Your task to perform on an android device: install app "YouTube Kids" Image 0: 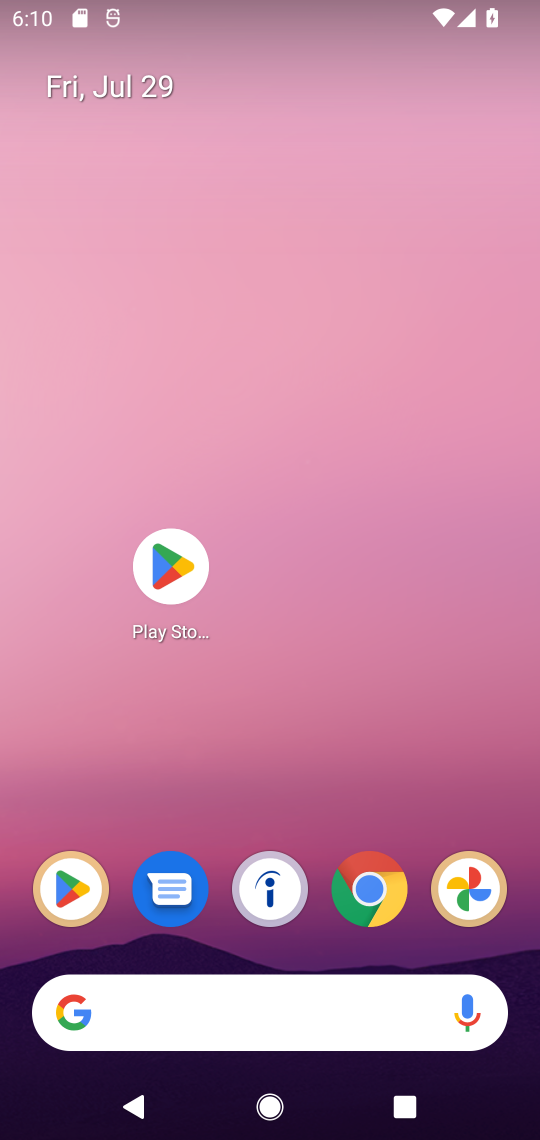
Step 0: press home button
Your task to perform on an android device: install app "YouTube Kids" Image 1: 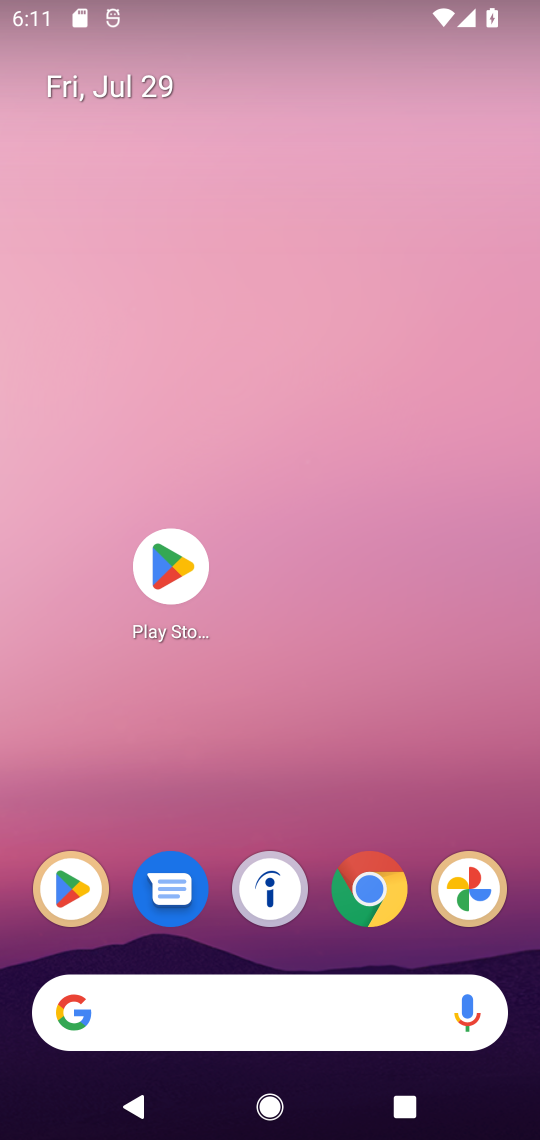
Step 1: click (180, 567)
Your task to perform on an android device: install app "YouTube Kids" Image 2: 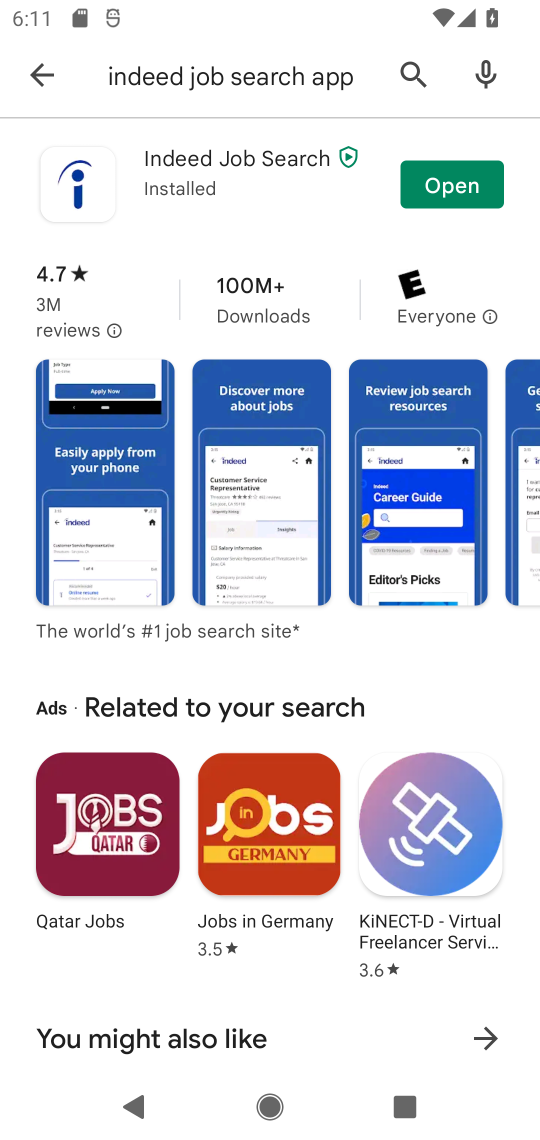
Step 2: click (407, 73)
Your task to perform on an android device: install app "YouTube Kids" Image 3: 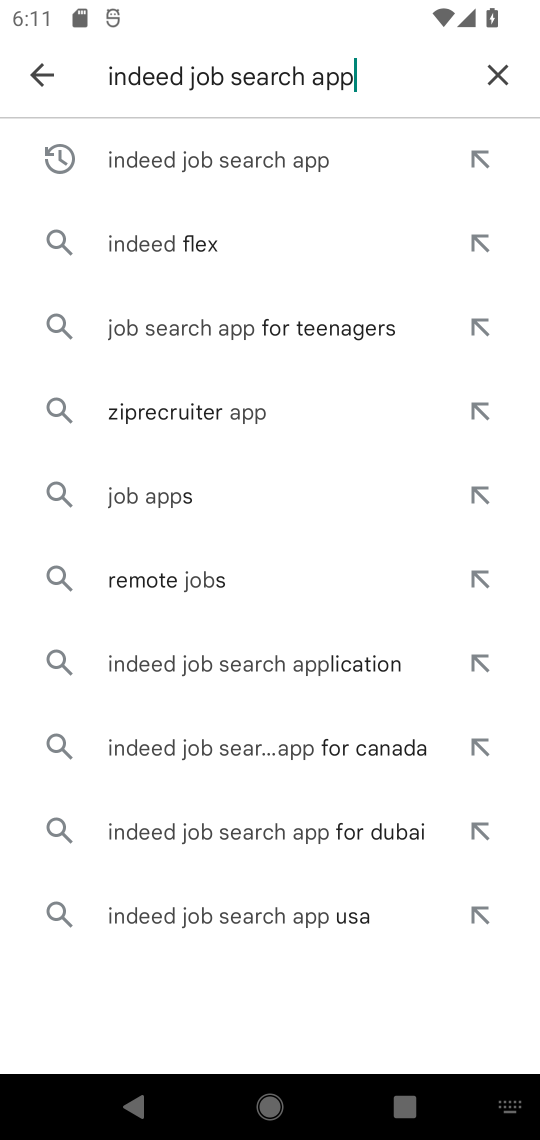
Step 3: click (499, 61)
Your task to perform on an android device: install app "YouTube Kids" Image 4: 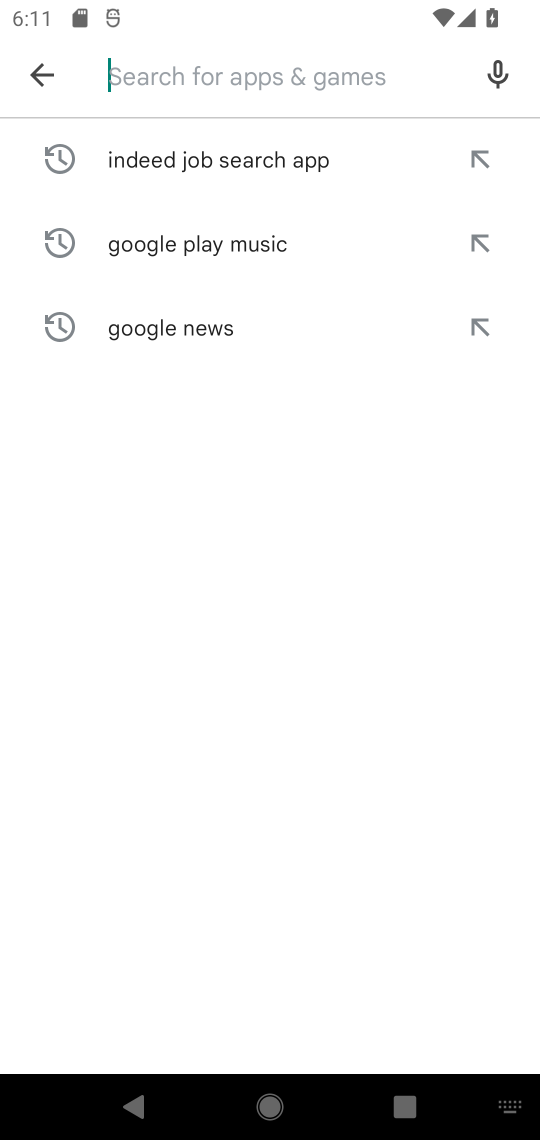
Step 4: type "YouTube Kids"
Your task to perform on an android device: install app "YouTube Kids" Image 5: 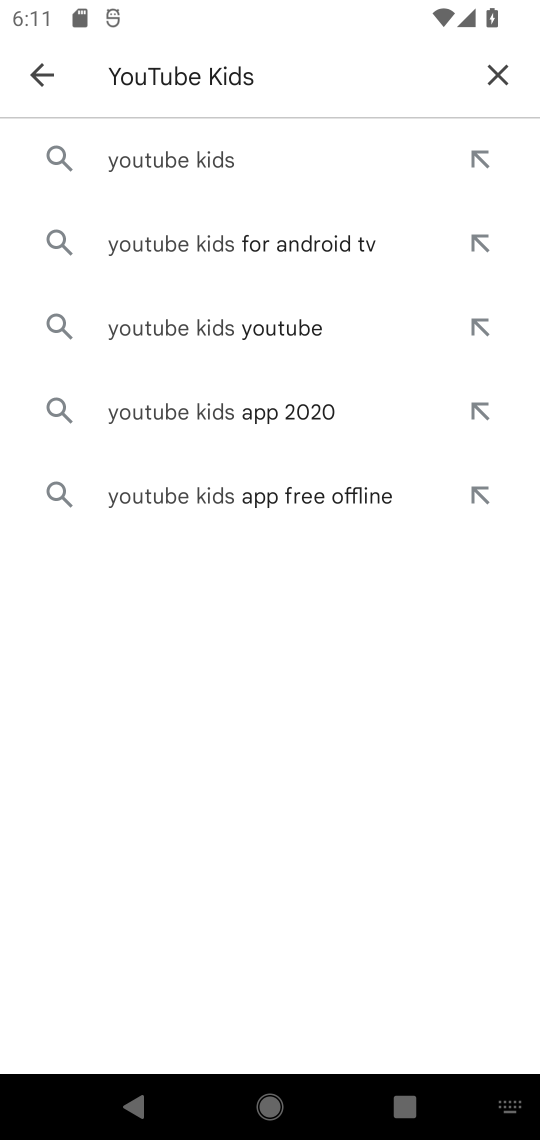
Step 5: click (187, 155)
Your task to perform on an android device: install app "YouTube Kids" Image 6: 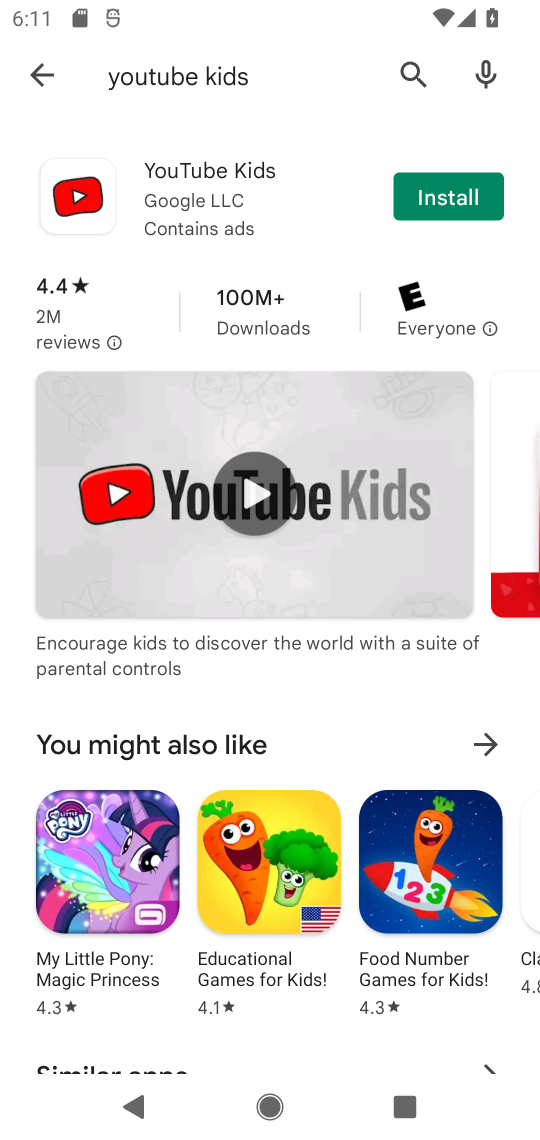
Step 6: click (441, 200)
Your task to perform on an android device: install app "YouTube Kids" Image 7: 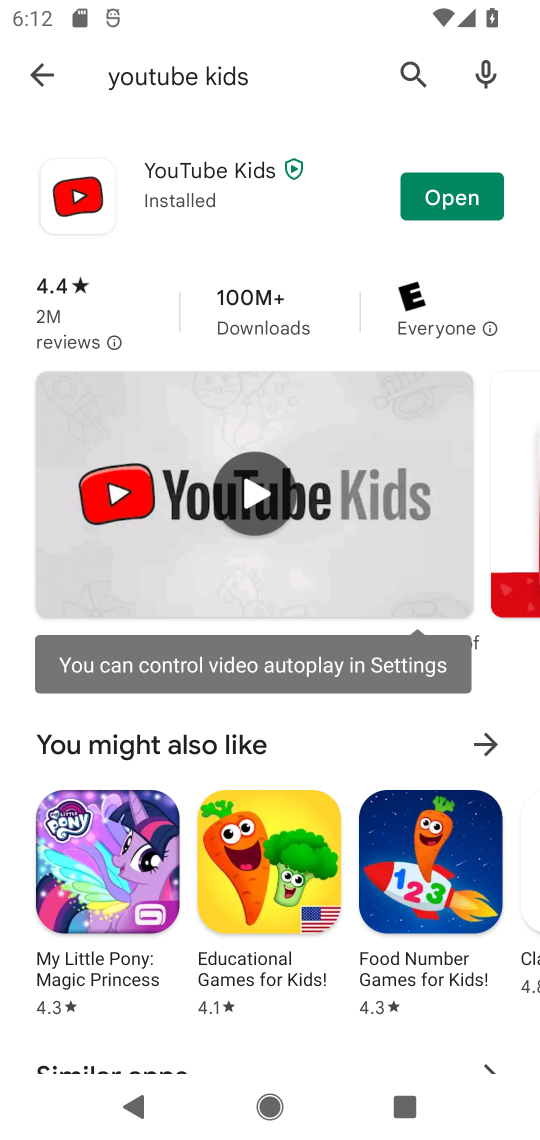
Step 7: task complete